Your task to perform on an android device: Go to accessibility settings Image 0: 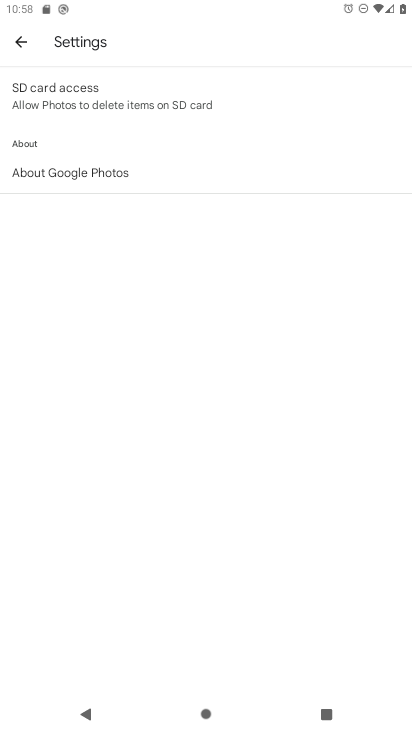
Step 0: press home button
Your task to perform on an android device: Go to accessibility settings Image 1: 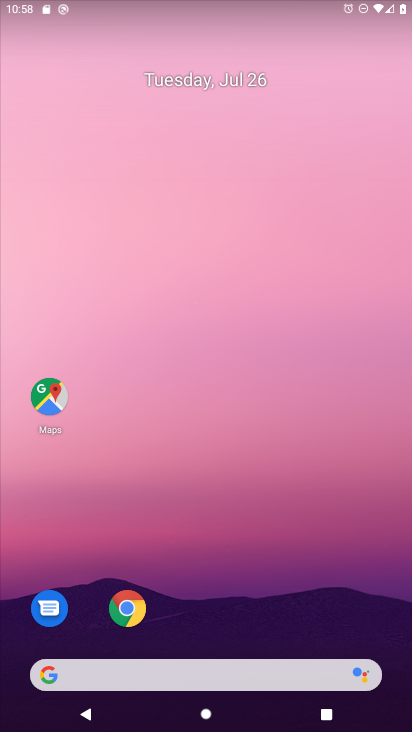
Step 1: drag from (300, 552) to (223, 57)
Your task to perform on an android device: Go to accessibility settings Image 2: 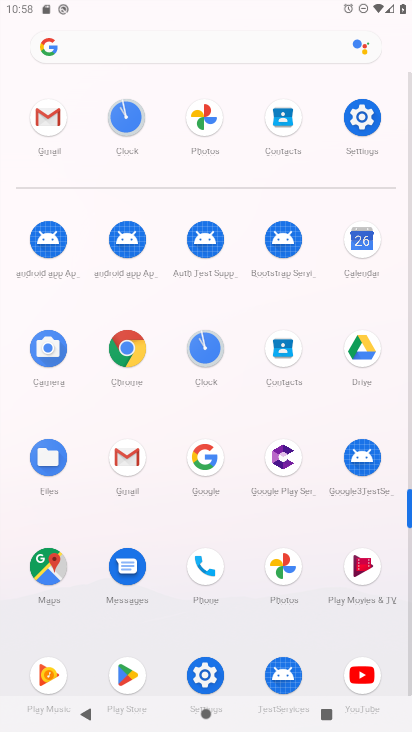
Step 2: click (367, 122)
Your task to perform on an android device: Go to accessibility settings Image 3: 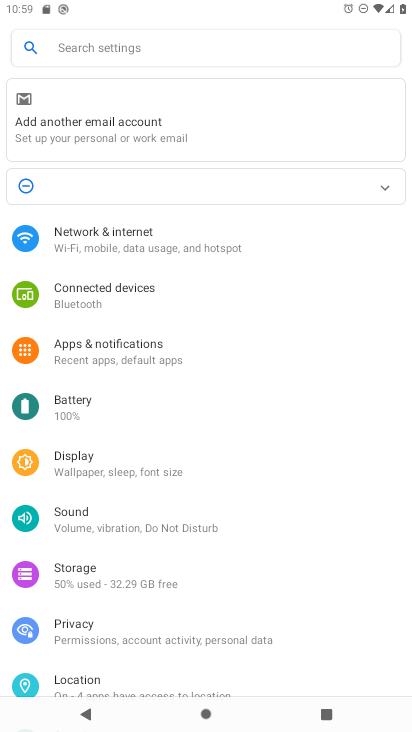
Step 3: drag from (119, 562) to (181, 235)
Your task to perform on an android device: Go to accessibility settings Image 4: 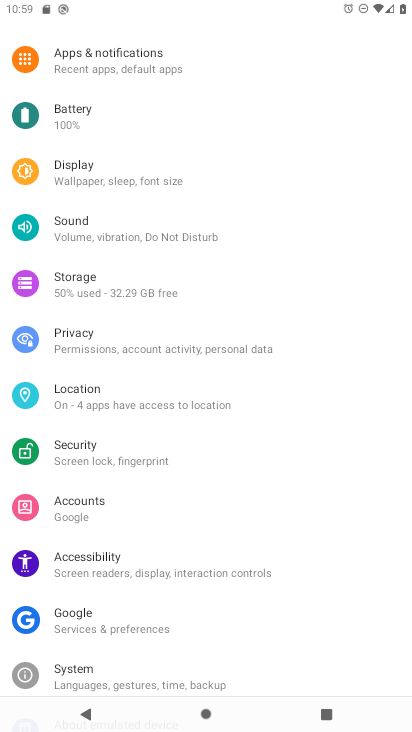
Step 4: click (98, 557)
Your task to perform on an android device: Go to accessibility settings Image 5: 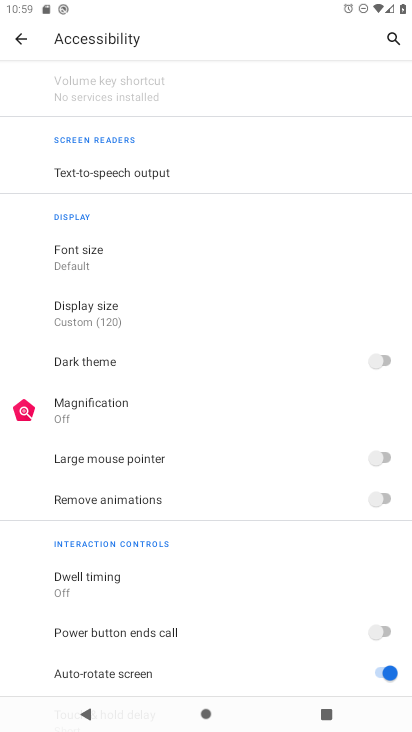
Step 5: task complete